Your task to perform on an android device: toggle show notifications on the lock screen Image 0: 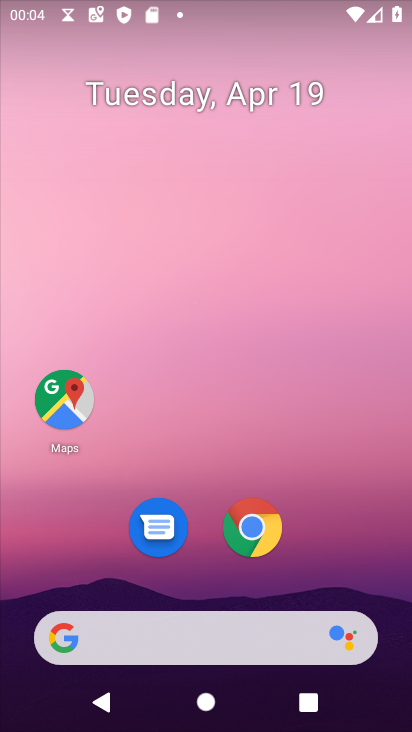
Step 0: drag from (346, 309) to (323, 58)
Your task to perform on an android device: toggle show notifications on the lock screen Image 1: 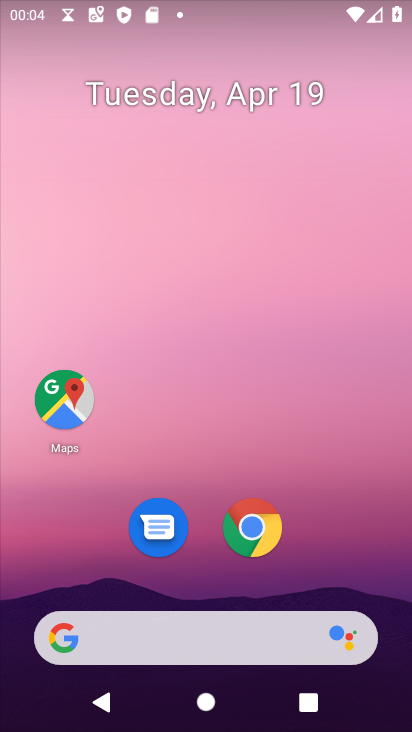
Step 1: drag from (311, 428) to (347, 32)
Your task to perform on an android device: toggle show notifications on the lock screen Image 2: 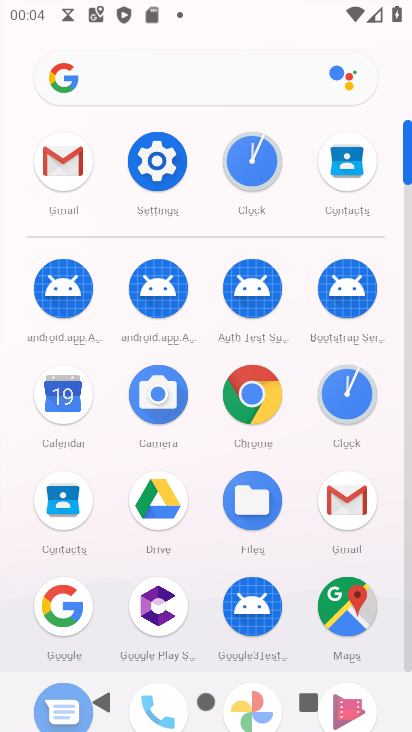
Step 2: click (150, 174)
Your task to perform on an android device: toggle show notifications on the lock screen Image 3: 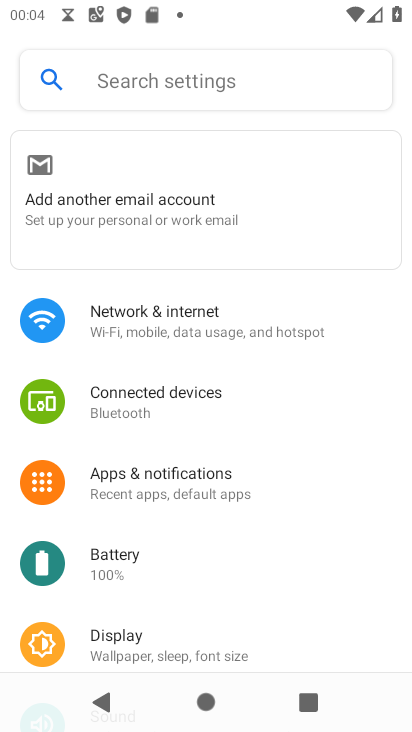
Step 3: click (159, 472)
Your task to perform on an android device: toggle show notifications on the lock screen Image 4: 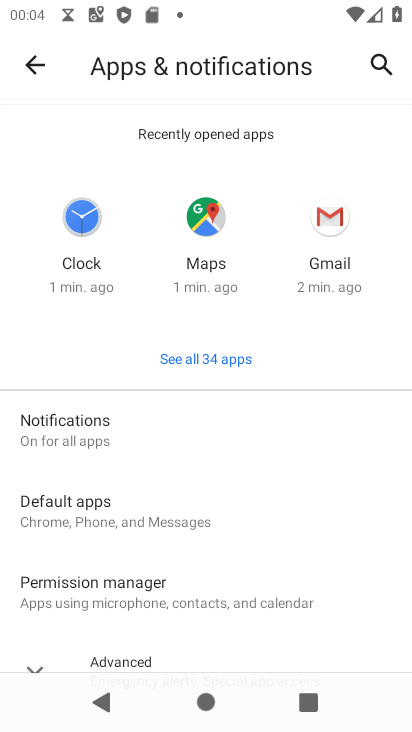
Step 4: click (153, 421)
Your task to perform on an android device: toggle show notifications on the lock screen Image 5: 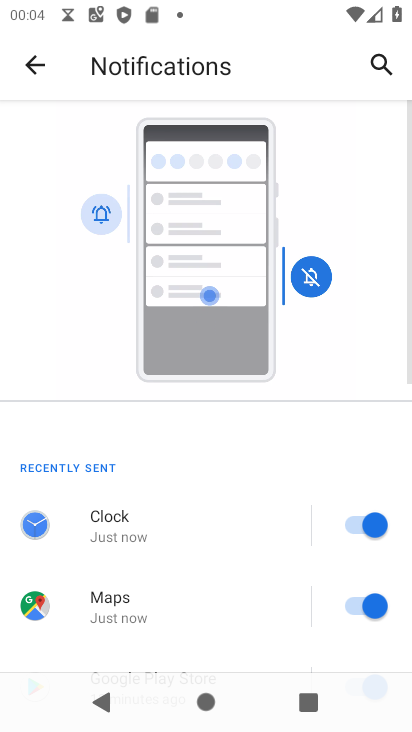
Step 5: drag from (156, 452) to (248, 194)
Your task to perform on an android device: toggle show notifications on the lock screen Image 6: 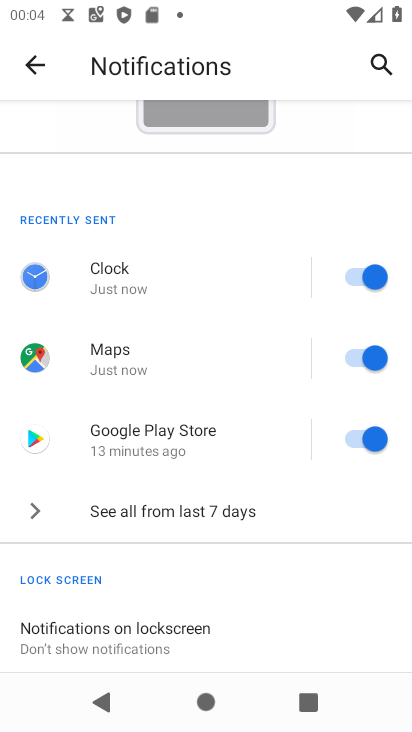
Step 6: click (180, 620)
Your task to perform on an android device: toggle show notifications on the lock screen Image 7: 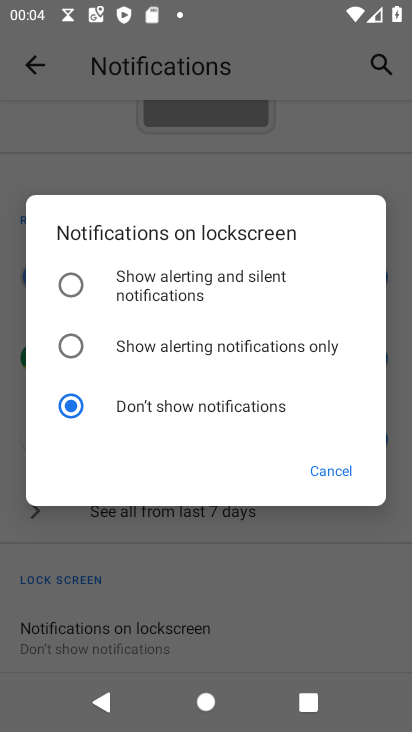
Step 7: click (205, 277)
Your task to perform on an android device: toggle show notifications on the lock screen Image 8: 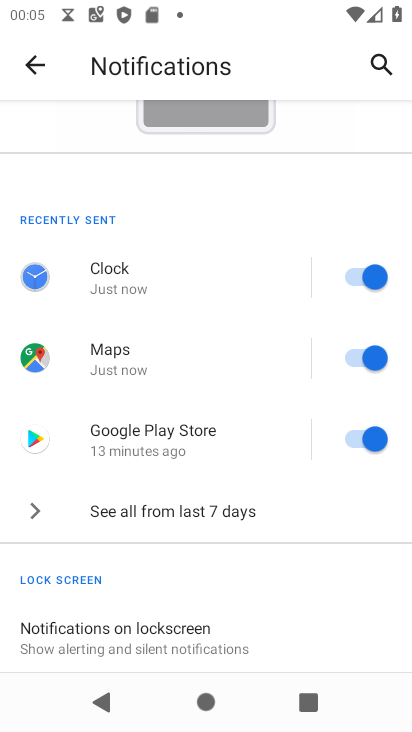
Step 8: task complete